Your task to perform on an android device: Open calendar and show me the third week of next month Image 0: 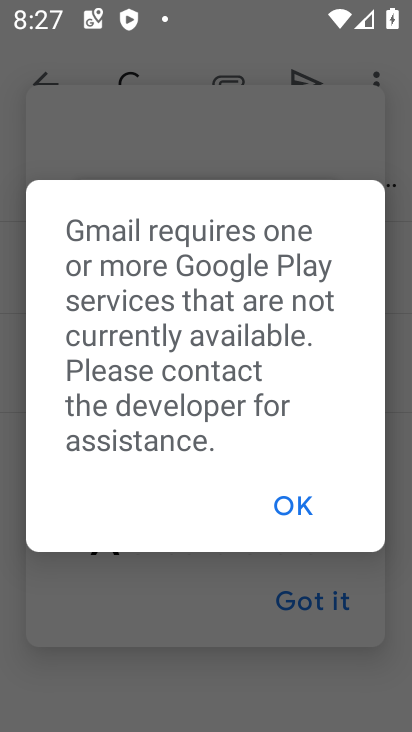
Step 0: press home button
Your task to perform on an android device: Open calendar and show me the third week of next month Image 1: 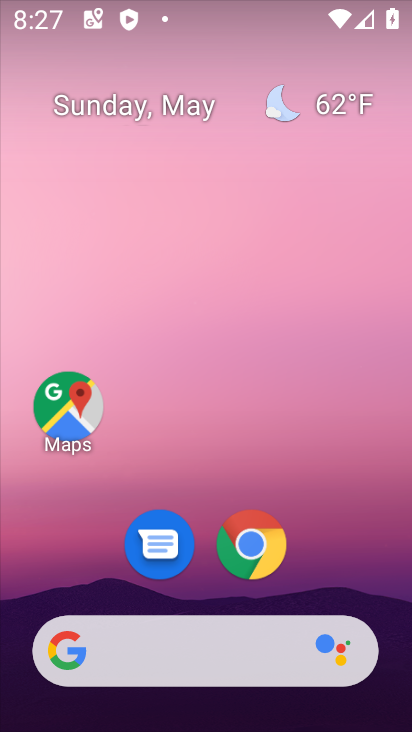
Step 1: drag from (279, 600) to (280, 153)
Your task to perform on an android device: Open calendar and show me the third week of next month Image 2: 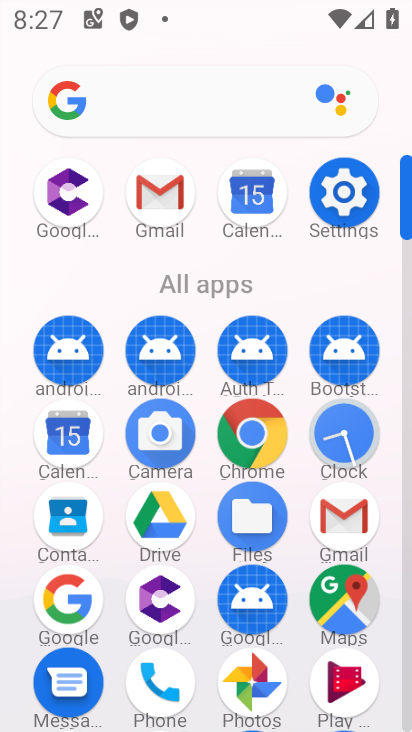
Step 2: click (74, 456)
Your task to perform on an android device: Open calendar and show me the third week of next month Image 3: 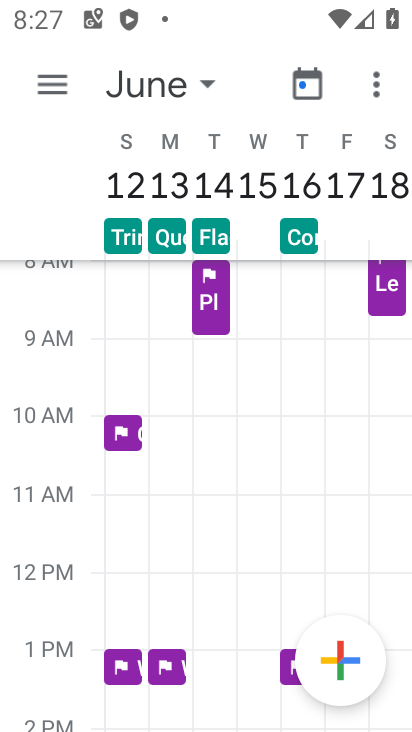
Step 3: click (173, 92)
Your task to perform on an android device: Open calendar and show me the third week of next month Image 4: 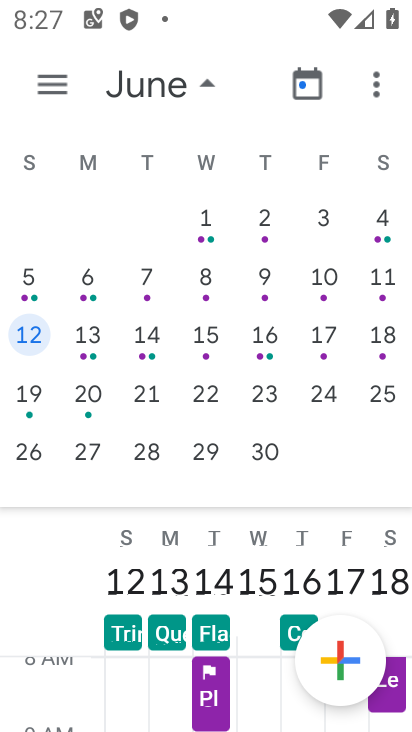
Step 4: task complete